Your task to perform on an android device: Open calendar and show me the first week of next month Image 0: 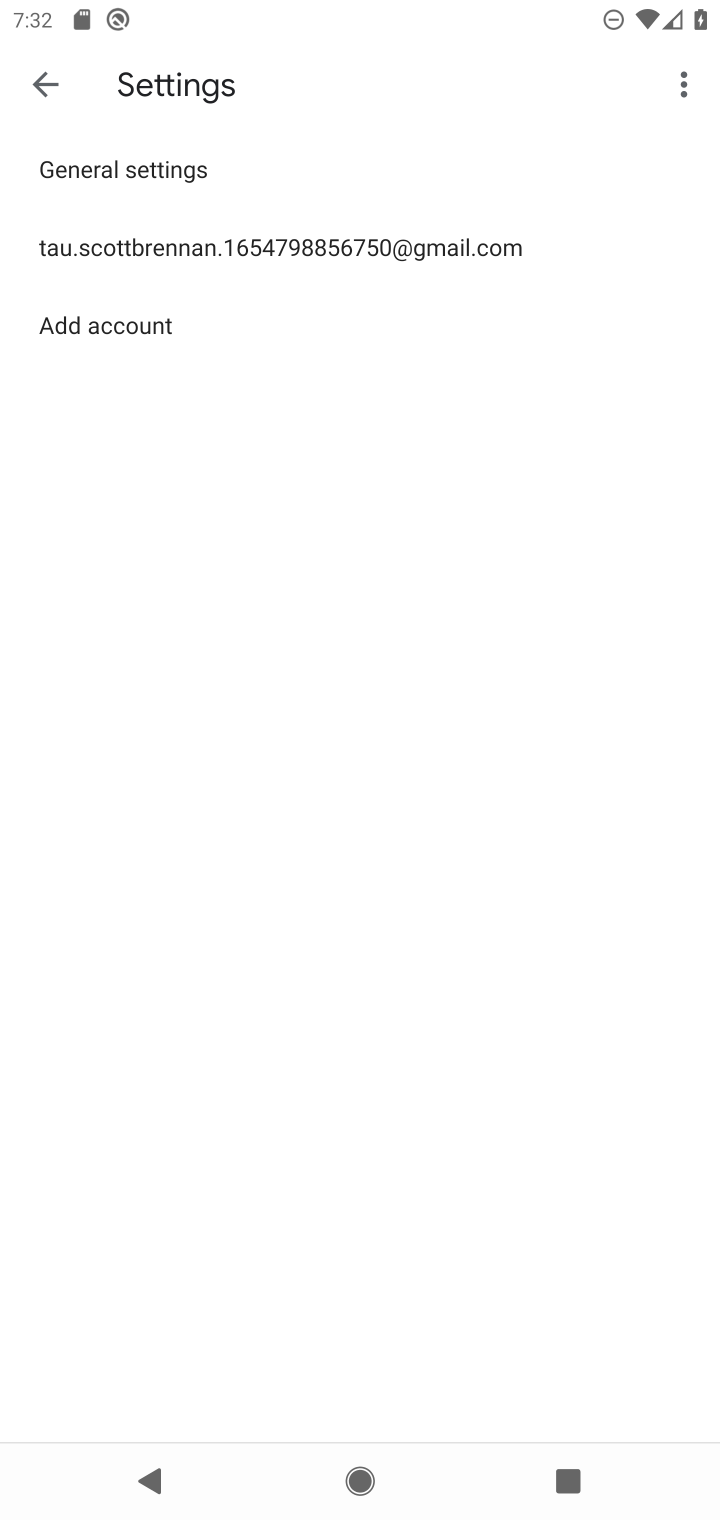
Step 0: press home button
Your task to perform on an android device: Open calendar and show me the first week of next month Image 1: 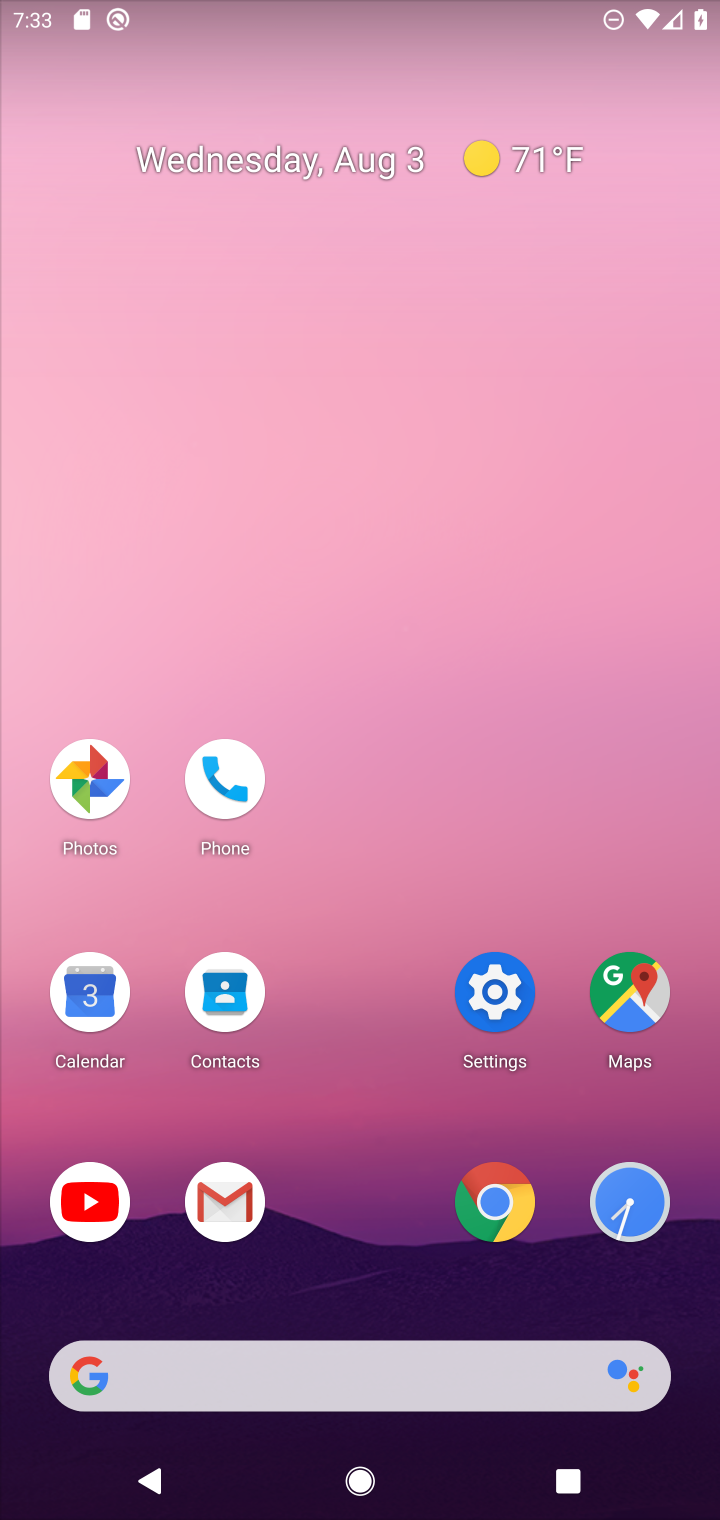
Step 1: click (94, 1000)
Your task to perform on an android device: Open calendar and show me the first week of next month Image 2: 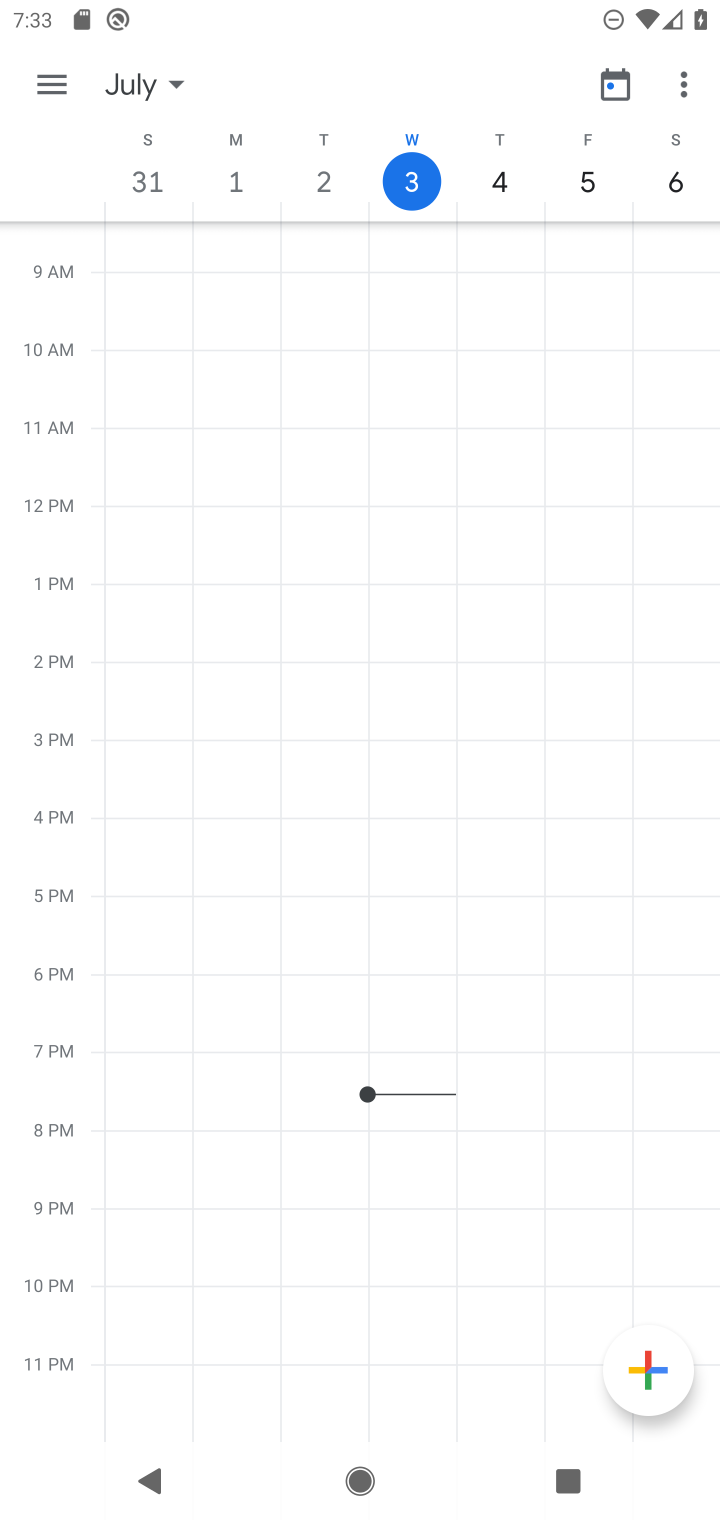
Step 2: click (152, 69)
Your task to perform on an android device: Open calendar and show me the first week of next month Image 3: 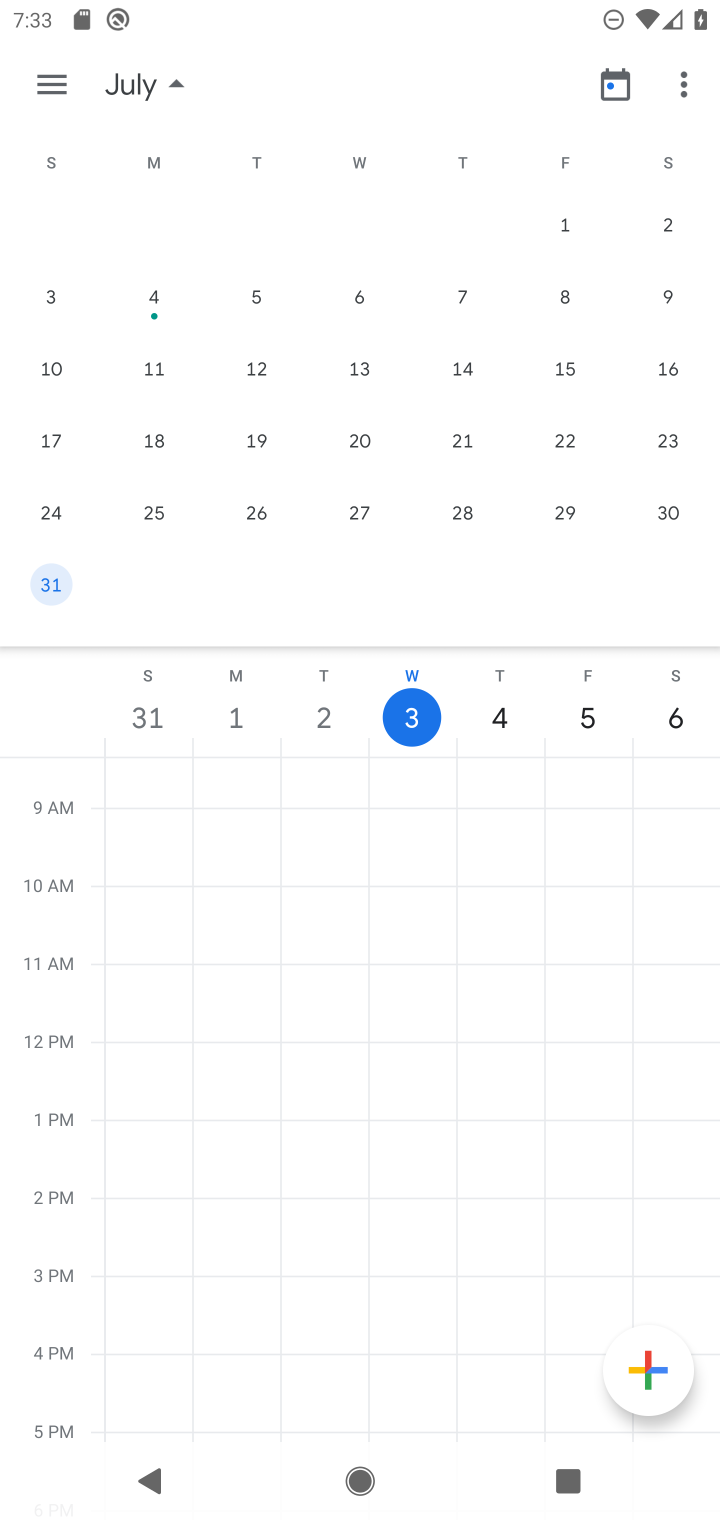
Step 3: drag from (655, 454) to (53, 438)
Your task to perform on an android device: Open calendar and show me the first week of next month Image 4: 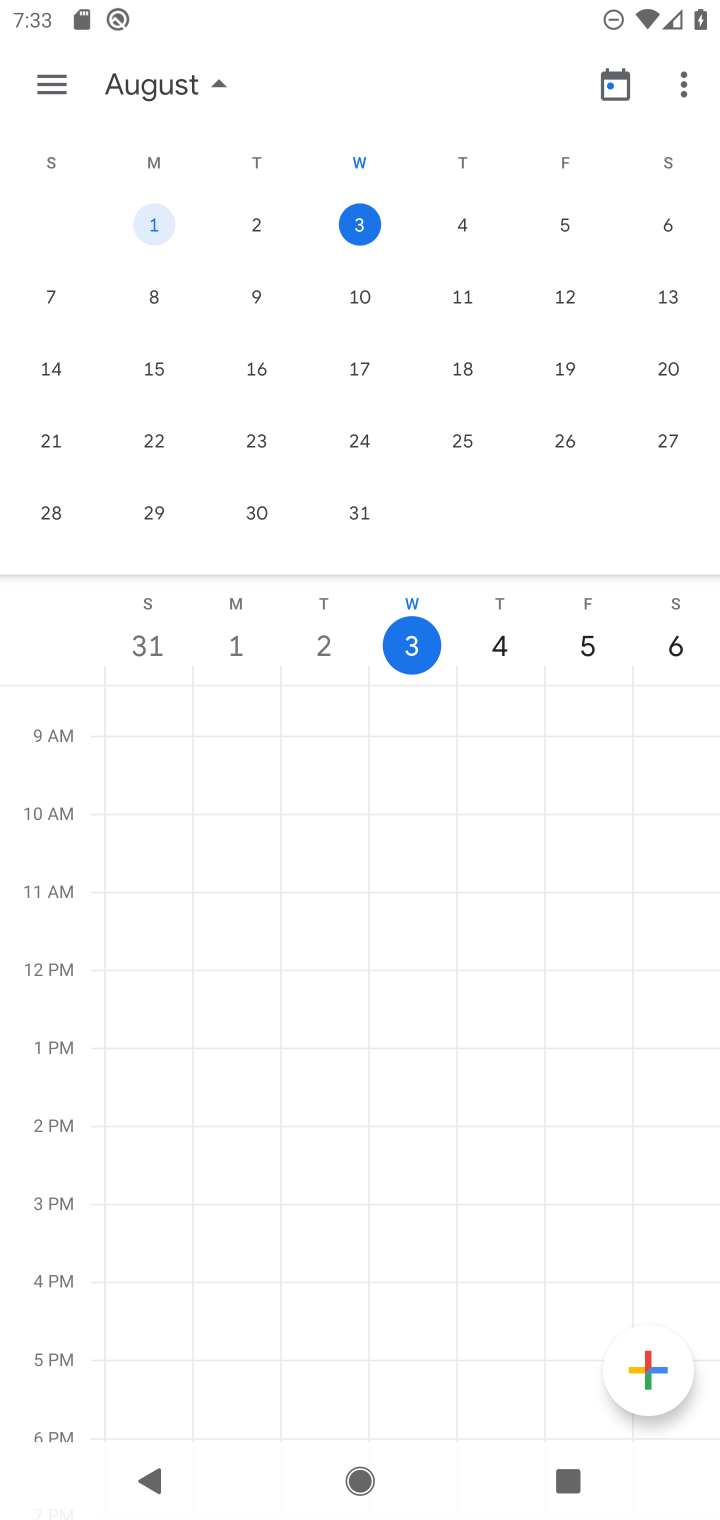
Step 4: drag from (647, 423) to (101, 349)
Your task to perform on an android device: Open calendar and show me the first week of next month Image 5: 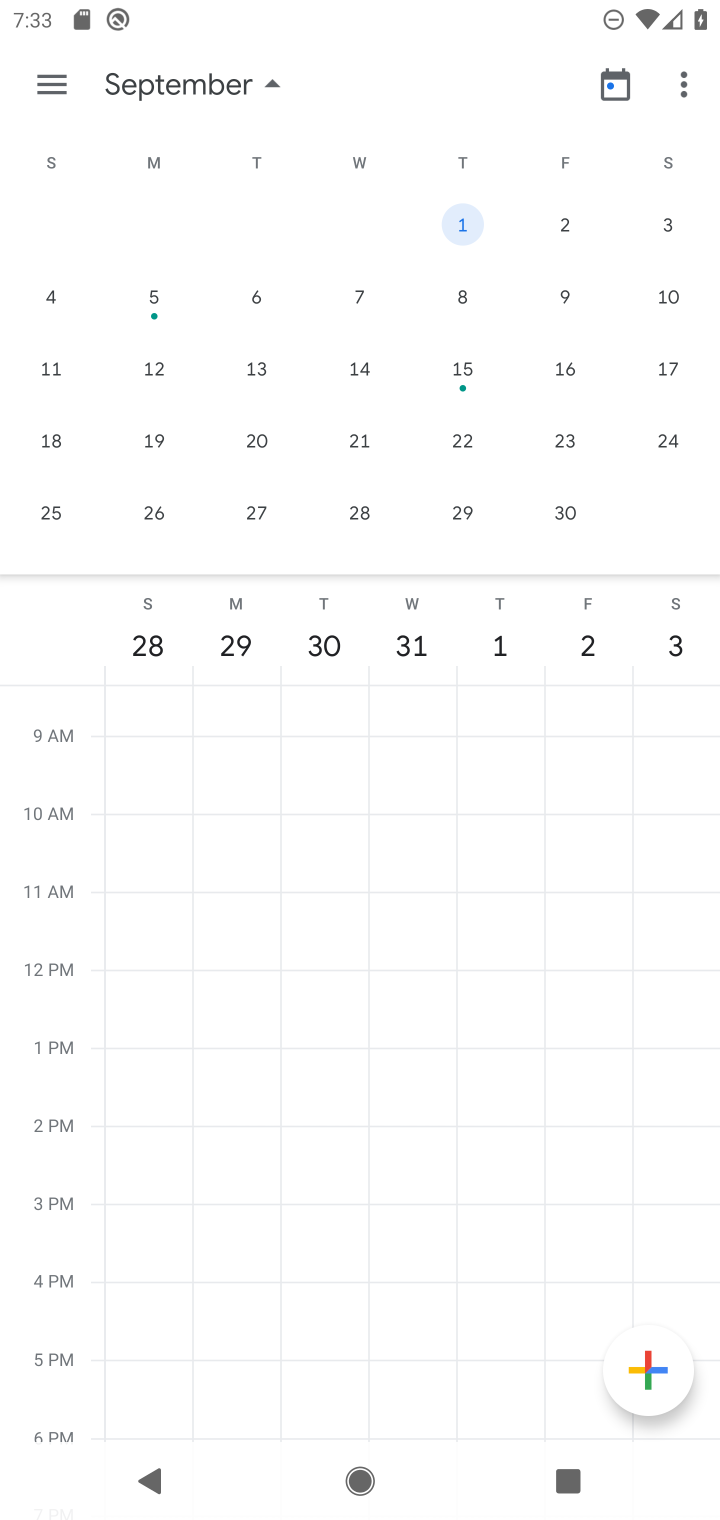
Step 5: click (466, 217)
Your task to perform on an android device: Open calendar and show me the first week of next month Image 6: 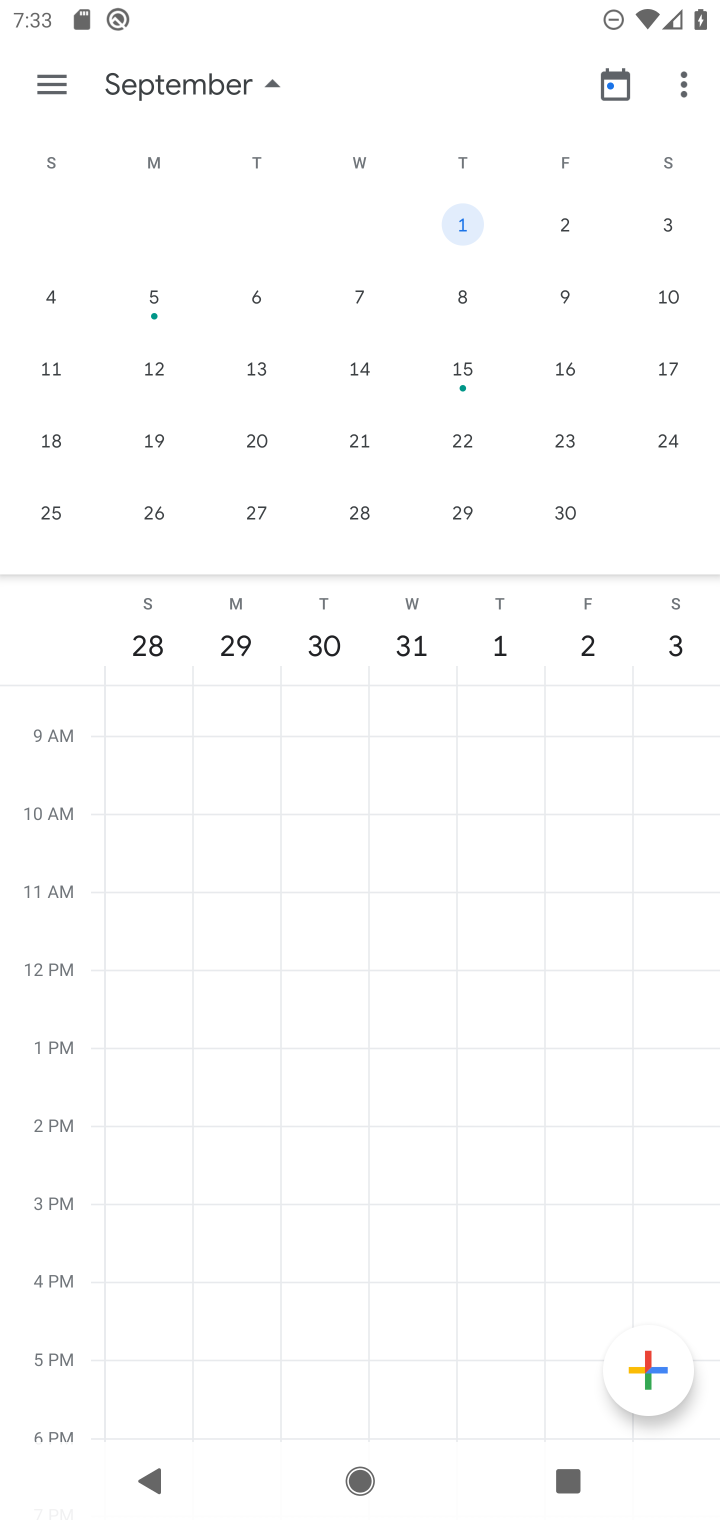
Step 6: task complete